Your task to perform on an android device: turn on the 12-hour format for clock Image 0: 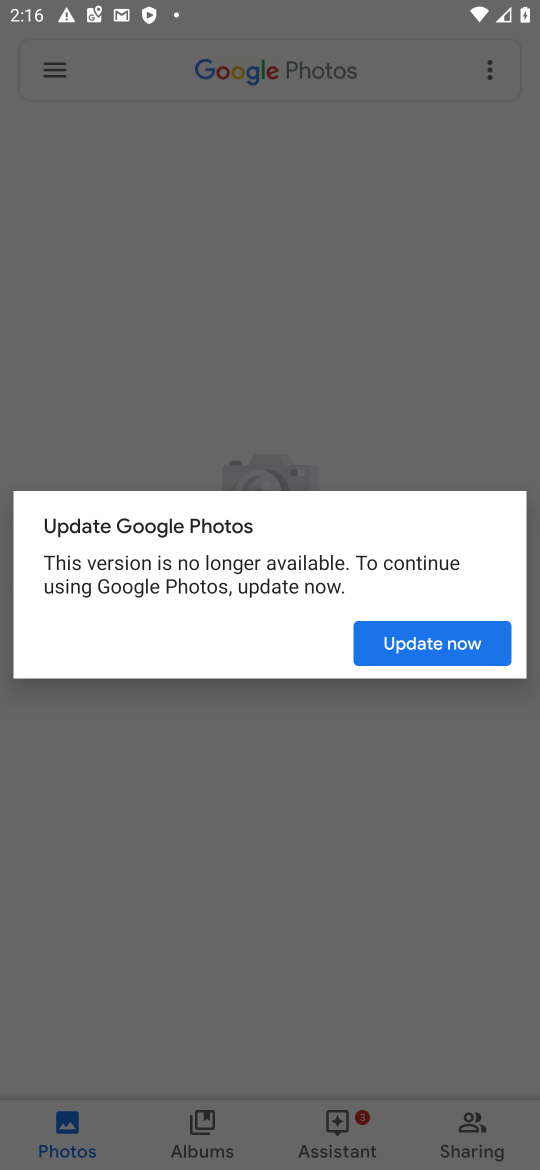
Step 0: press home button
Your task to perform on an android device: turn on the 12-hour format for clock Image 1: 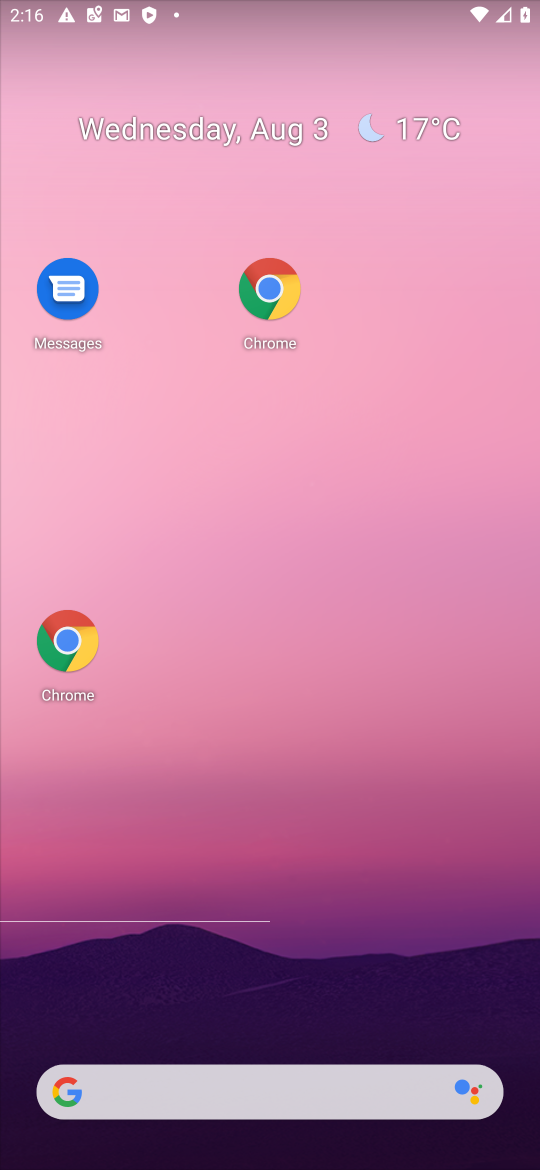
Step 1: drag from (374, 939) to (356, 116)
Your task to perform on an android device: turn on the 12-hour format for clock Image 2: 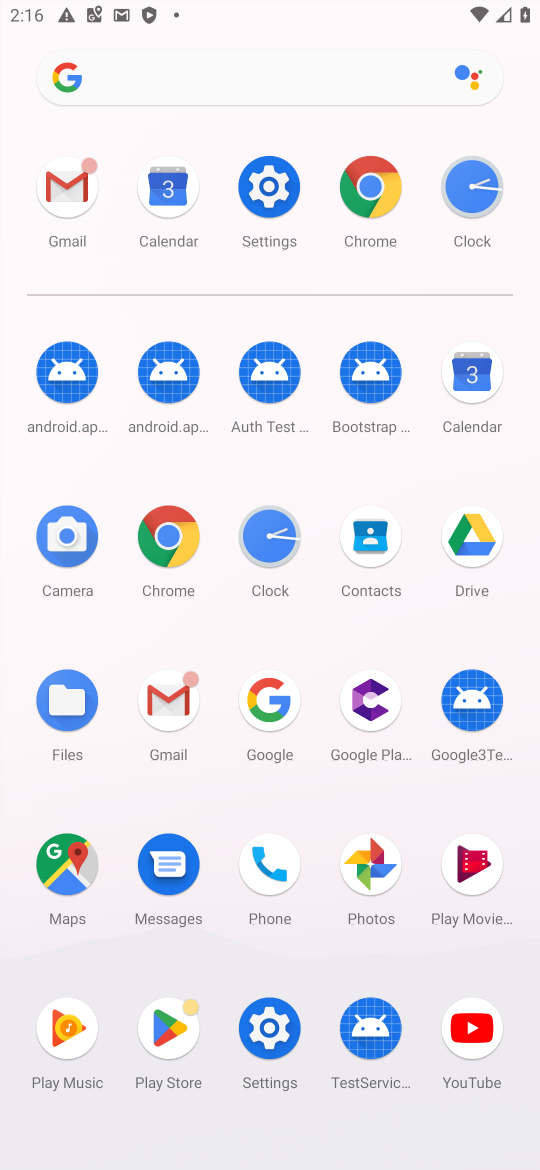
Step 2: click (277, 535)
Your task to perform on an android device: turn on the 12-hour format for clock Image 3: 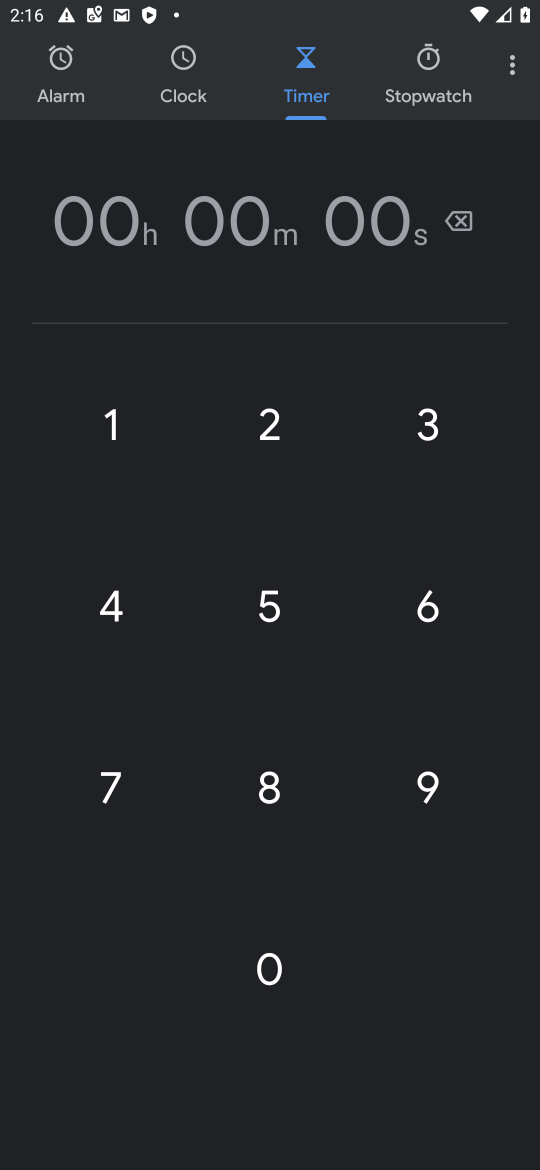
Step 3: click (508, 70)
Your task to perform on an android device: turn on the 12-hour format for clock Image 4: 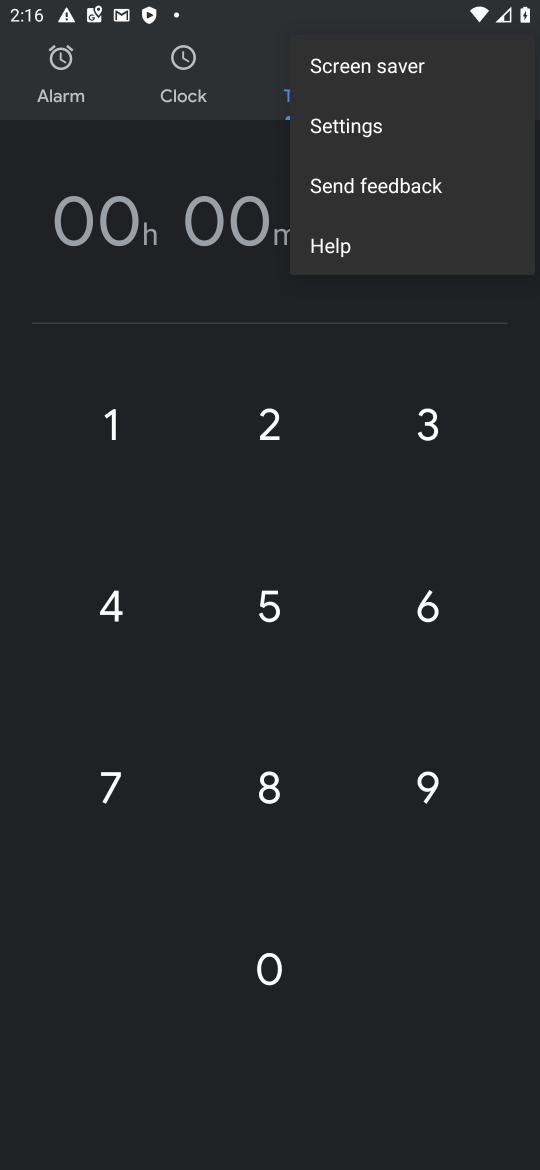
Step 4: click (370, 149)
Your task to perform on an android device: turn on the 12-hour format for clock Image 5: 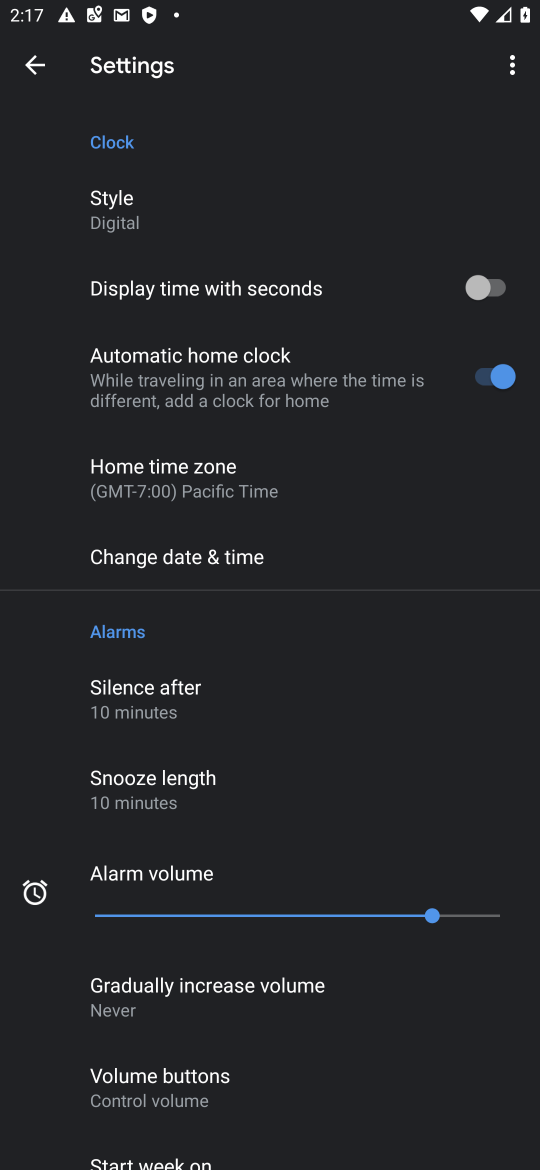
Step 5: task complete